Your task to perform on an android device: Search for hotels in San Diego Image 0: 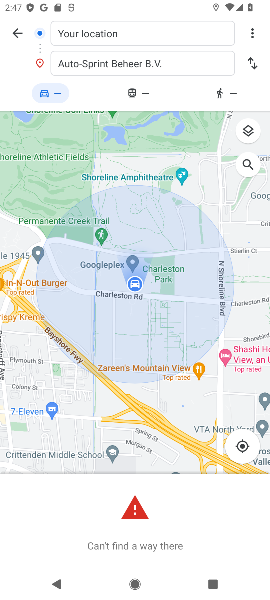
Step 0: press home button
Your task to perform on an android device: Search for hotels in San Diego Image 1: 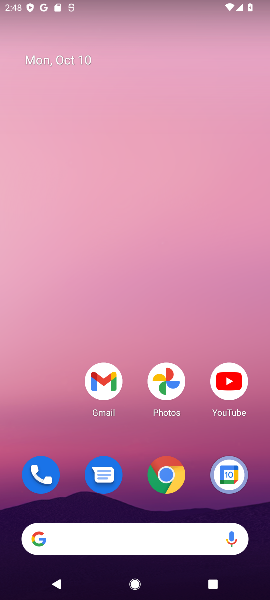
Step 1: drag from (140, 487) to (151, 236)
Your task to perform on an android device: Search for hotels in San Diego Image 2: 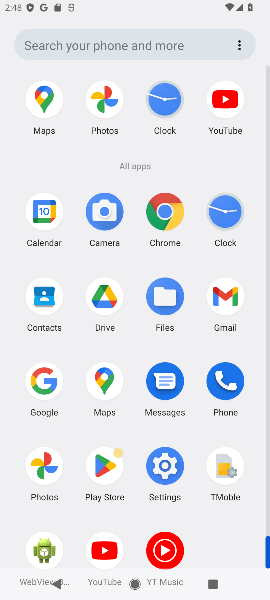
Step 2: click (52, 390)
Your task to perform on an android device: Search for hotels in San Diego Image 3: 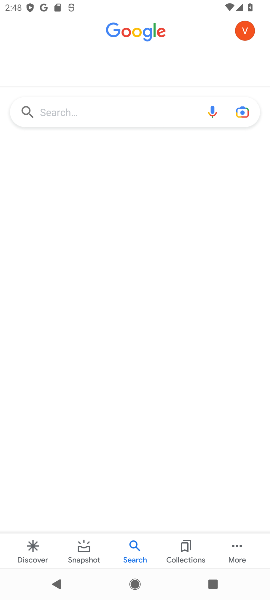
Step 3: click (72, 121)
Your task to perform on an android device: Search for hotels in San Diego Image 4: 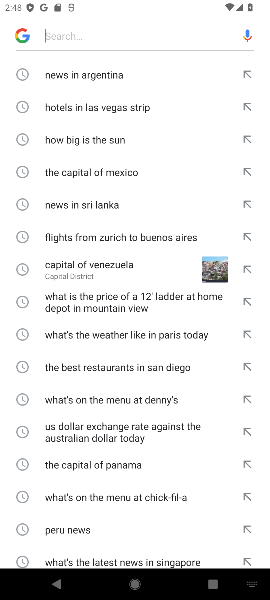
Step 4: type "hotels in San Diego"
Your task to perform on an android device: Search for hotels in San Diego Image 5: 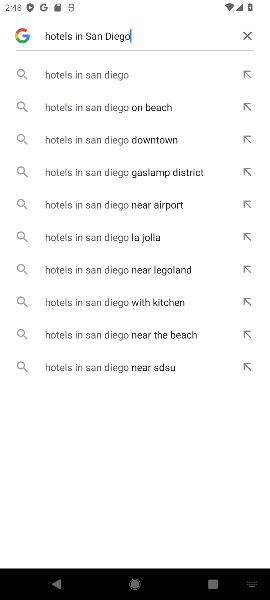
Step 5: click (130, 80)
Your task to perform on an android device: Search for hotels in San Diego Image 6: 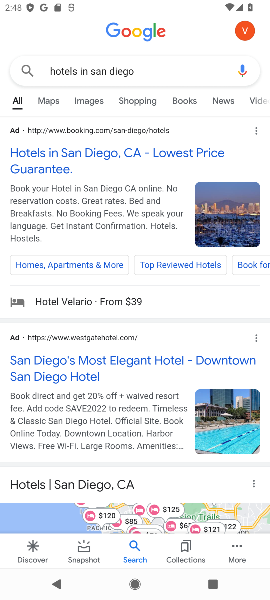
Step 6: task complete